Your task to perform on an android device: open wifi settings Image 0: 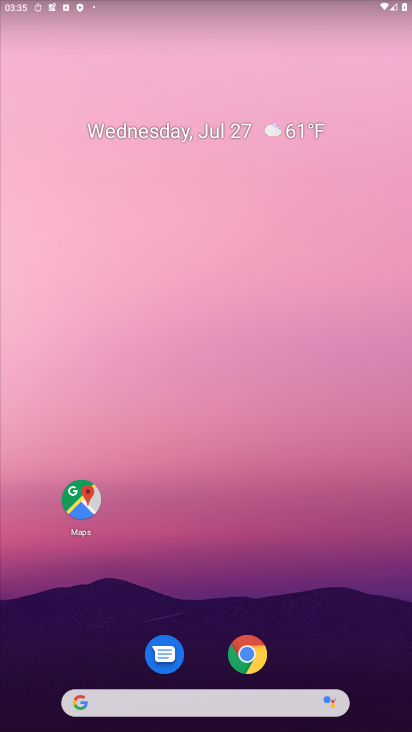
Step 0: drag from (288, 690) to (209, 15)
Your task to perform on an android device: open wifi settings Image 1: 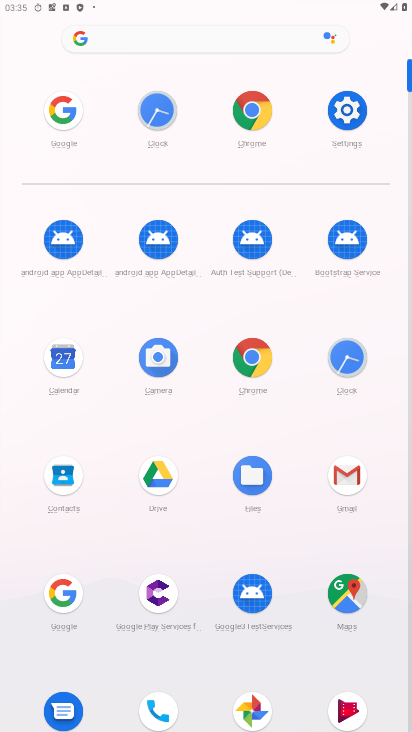
Step 1: click (343, 115)
Your task to perform on an android device: open wifi settings Image 2: 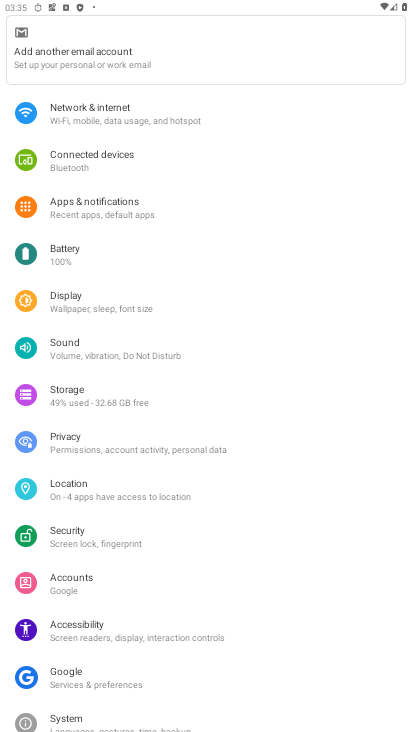
Step 2: click (151, 111)
Your task to perform on an android device: open wifi settings Image 3: 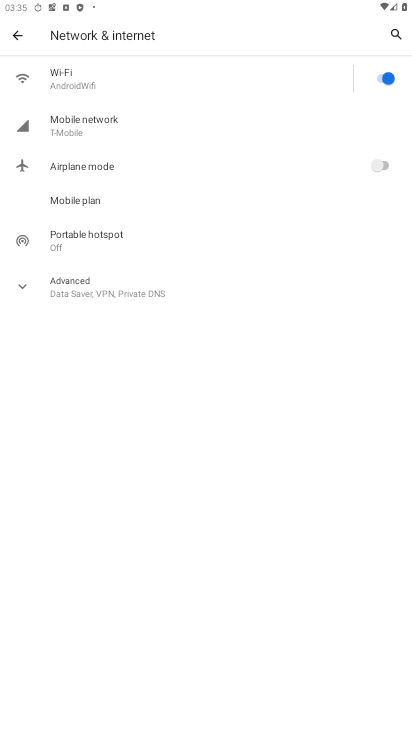
Step 3: click (131, 79)
Your task to perform on an android device: open wifi settings Image 4: 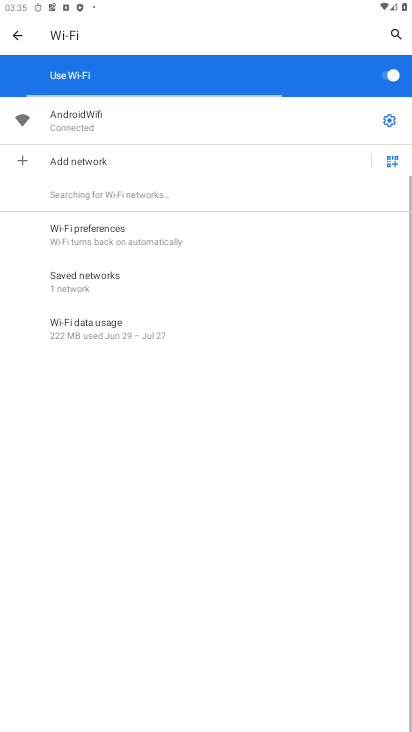
Step 4: task complete